Your task to perform on an android device: Open the map Image 0: 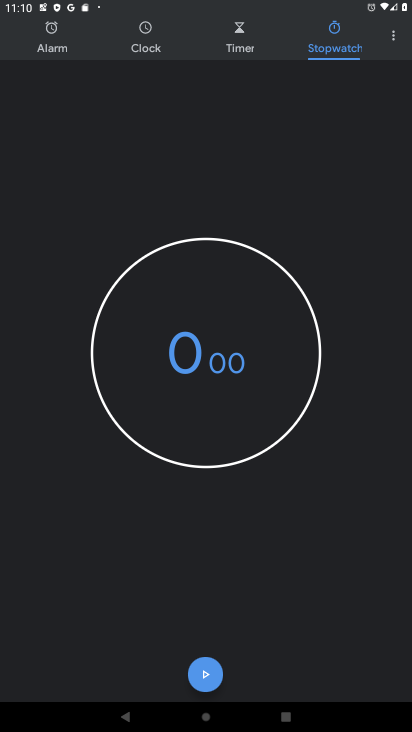
Step 0: press home button
Your task to perform on an android device: Open the map Image 1: 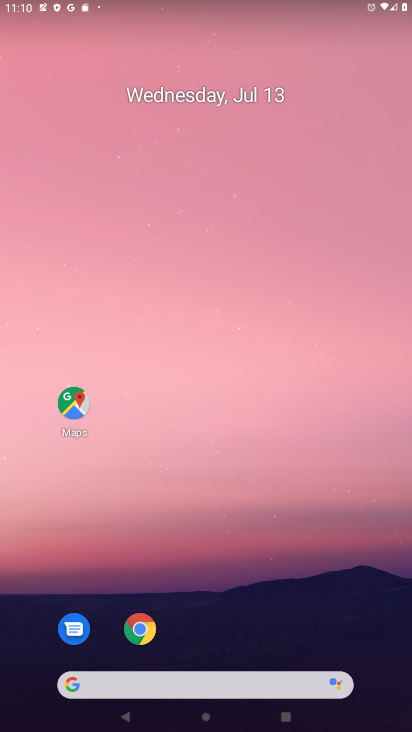
Step 1: click (79, 420)
Your task to perform on an android device: Open the map Image 2: 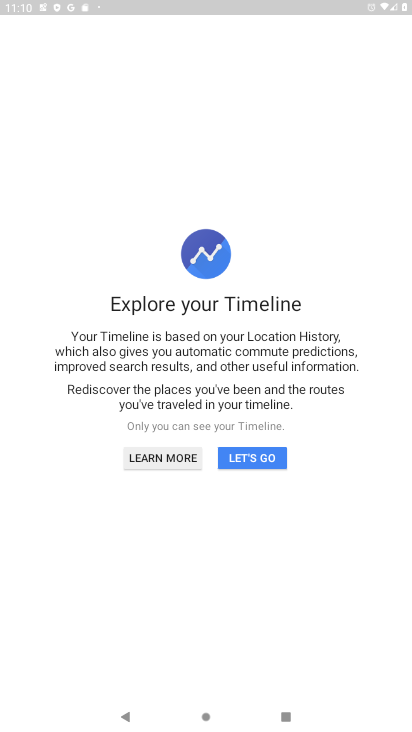
Step 2: click (268, 455)
Your task to perform on an android device: Open the map Image 3: 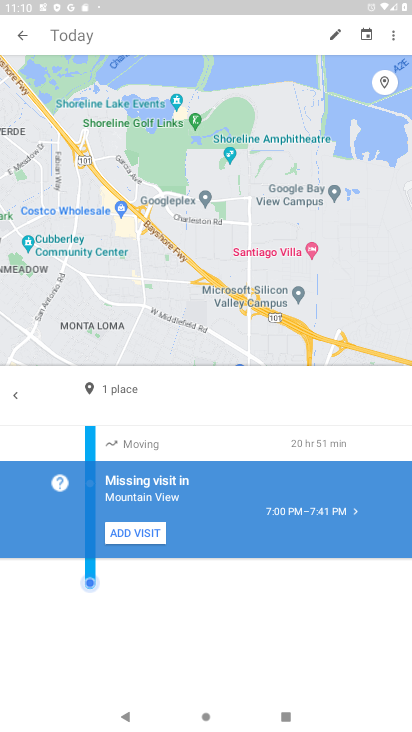
Step 3: task complete